Your task to perform on an android device: Toggle the flashlight Image 0: 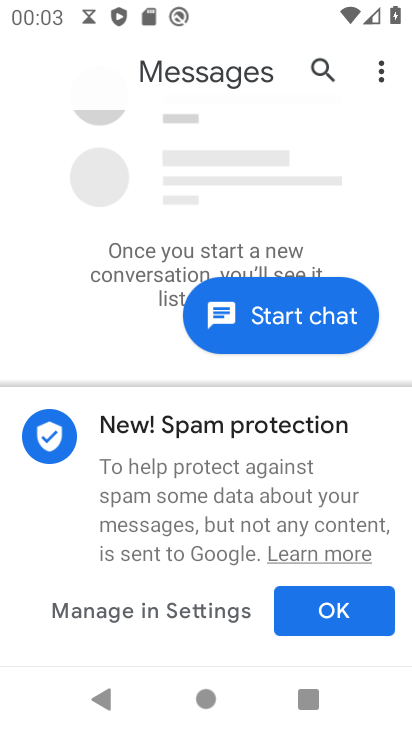
Step 0: press home button
Your task to perform on an android device: Toggle the flashlight Image 1: 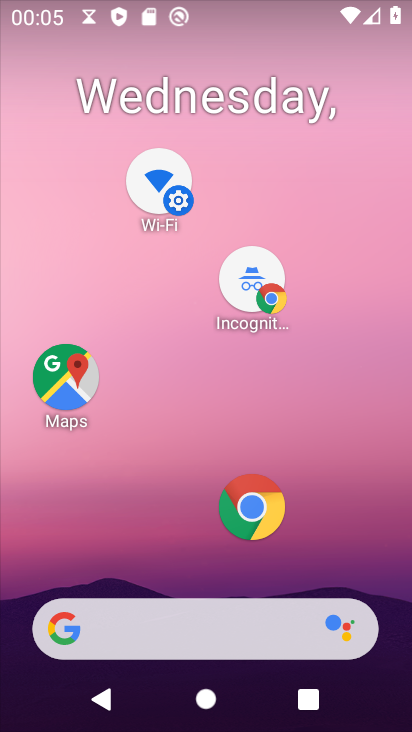
Step 1: click (68, 340)
Your task to perform on an android device: Toggle the flashlight Image 2: 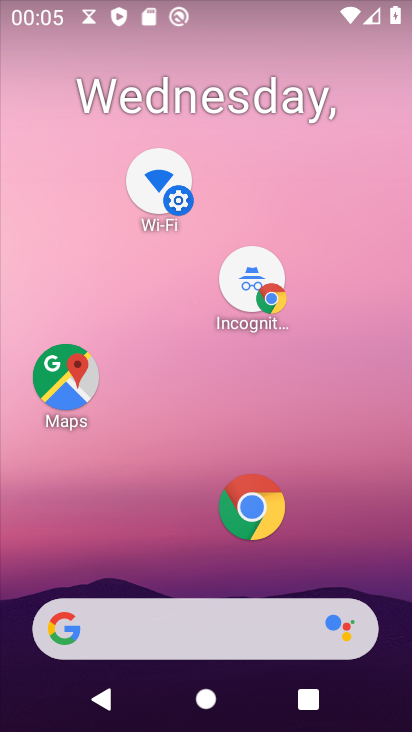
Step 2: drag from (2, 699) to (105, 271)
Your task to perform on an android device: Toggle the flashlight Image 3: 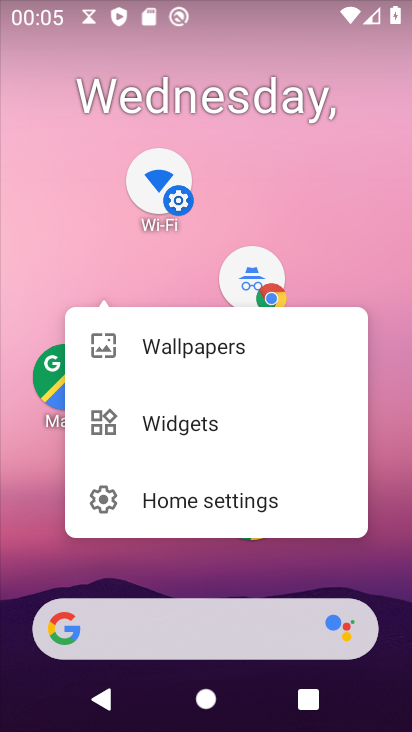
Step 3: click (404, 178)
Your task to perform on an android device: Toggle the flashlight Image 4: 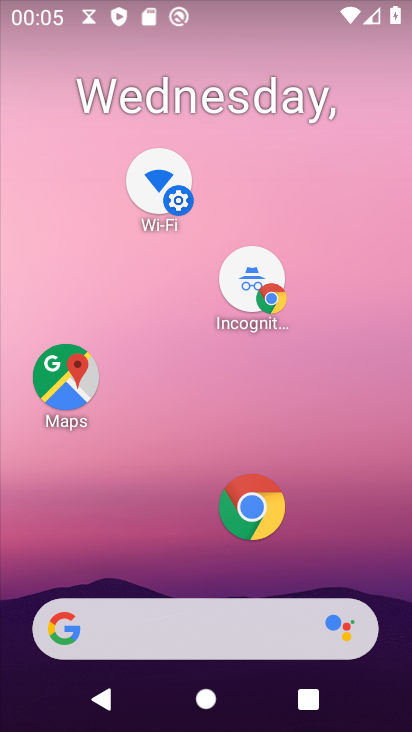
Step 4: click (364, 199)
Your task to perform on an android device: Toggle the flashlight Image 5: 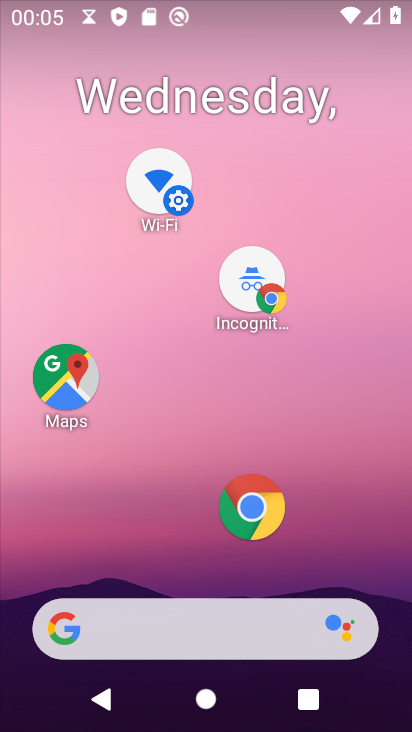
Step 5: drag from (2, 680) to (147, 324)
Your task to perform on an android device: Toggle the flashlight Image 6: 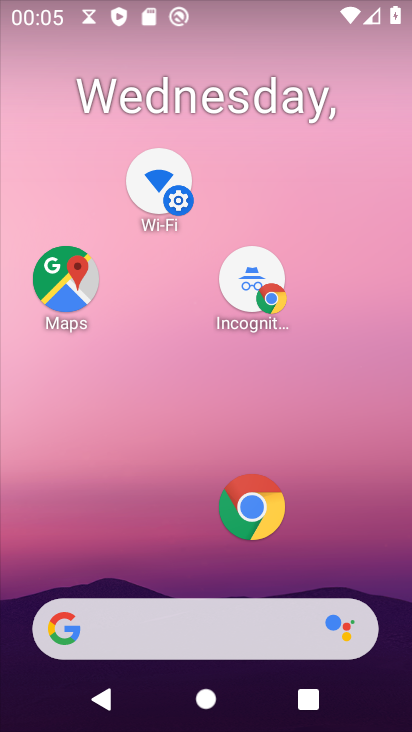
Step 6: click (200, 286)
Your task to perform on an android device: Toggle the flashlight Image 7: 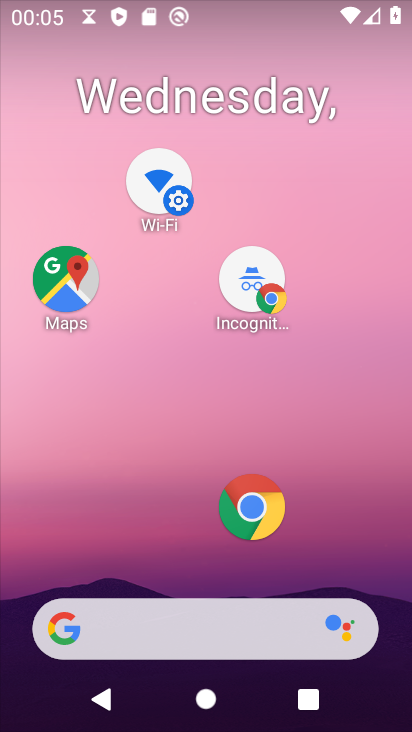
Step 7: click (14, 691)
Your task to perform on an android device: Toggle the flashlight Image 8: 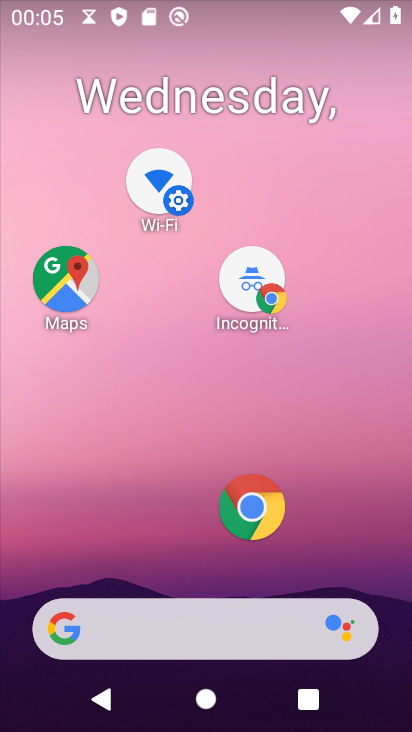
Step 8: click (82, 278)
Your task to perform on an android device: Toggle the flashlight Image 9: 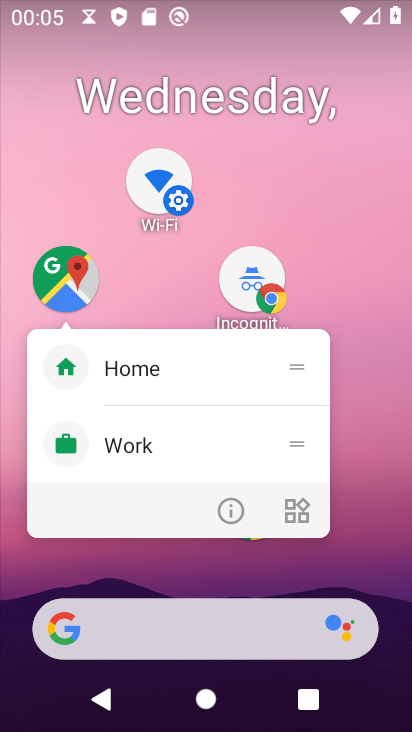
Step 9: click (54, 561)
Your task to perform on an android device: Toggle the flashlight Image 10: 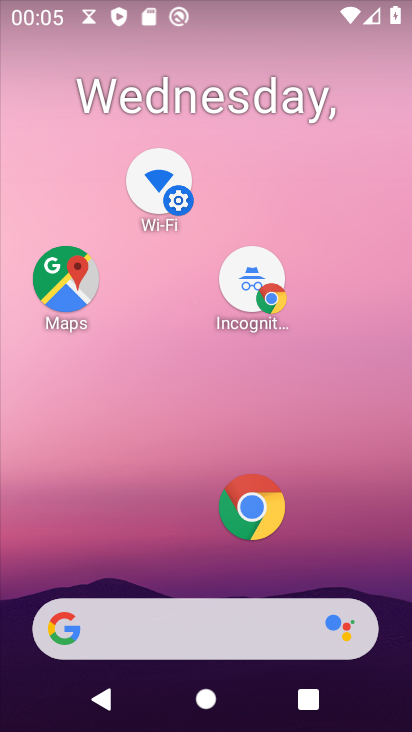
Step 10: drag from (35, 632) to (116, 268)
Your task to perform on an android device: Toggle the flashlight Image 11: 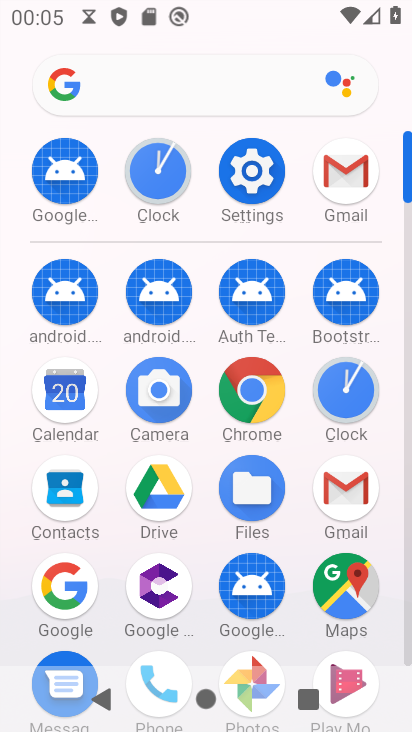
Step 11: click (253, 174)
Your task to perform on an android device: Toggle the flashlight Image 12: 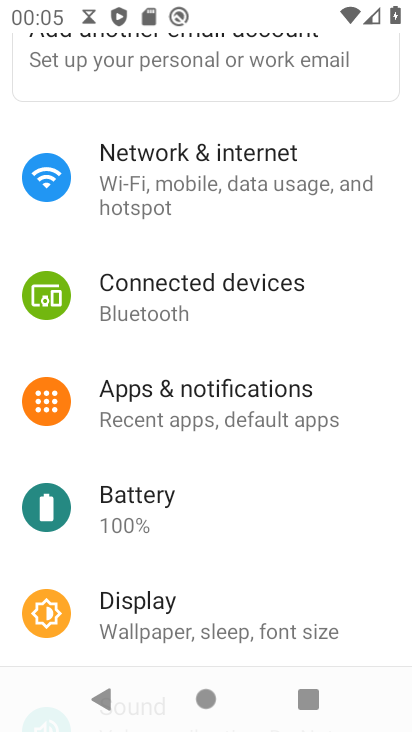
Step 12: task complete